Your task to perform on an android device: uninstall "Google Chat" Image 0: 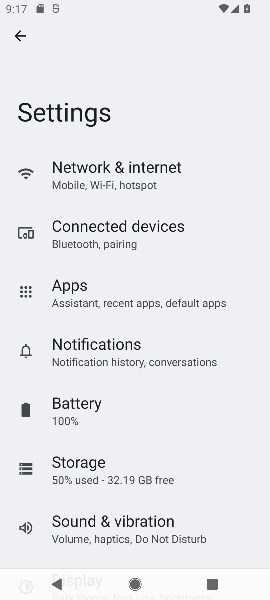
Step 0: press back button
Your task to perform on an android device: uninstall "Google Chat" Image 1: 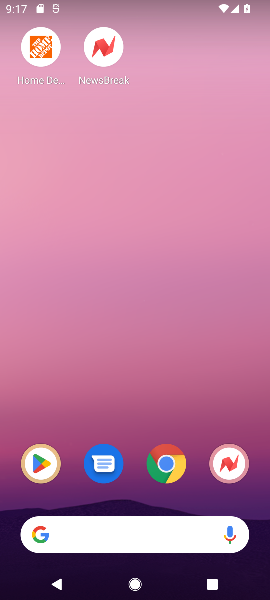
Step 1: click (40, 465)
Your task to perform on an android device: uninstall "Google Chat" Image 2: 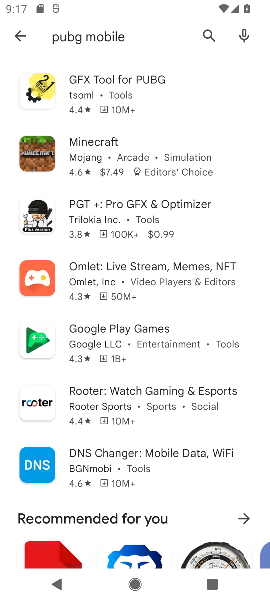
Step 2: click (206, 37)
Your task to perform on an android device: uninstall "Google Chat" Image 3: 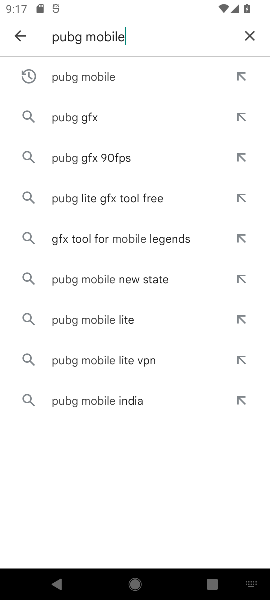
Step 3: click (244, 34)
Your task to perform on an android device: uninstall "Google Chat" Image 4: 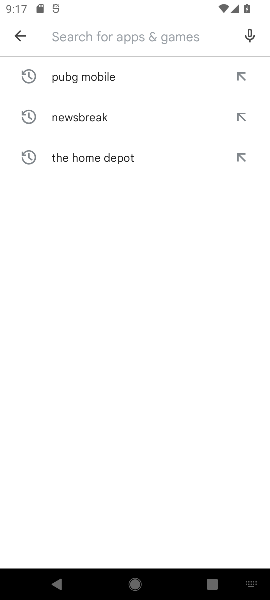
Step 4: click (108, 38)
Your task to perform on an android device: uninstall "Google Chat" Image 5: 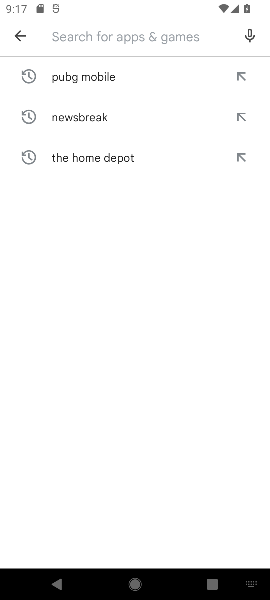
Step 5: type "google chat"
Your task to perform on an android device: uninstall "Google Chat" Image 6: 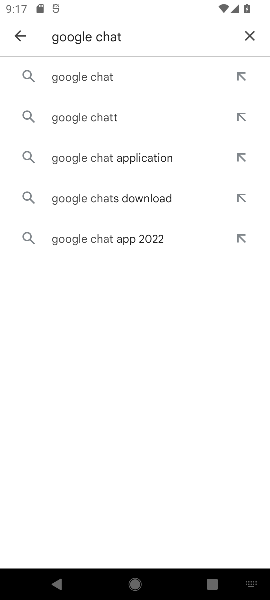
Step 6: click (109, 81)
Your task to perform on an android device: uninstall "Google Chat" Image 7: 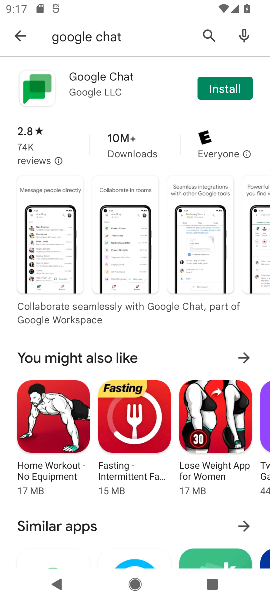
Step 7: task complete